Your task to perform on an android device: Open Android settings Image 0: 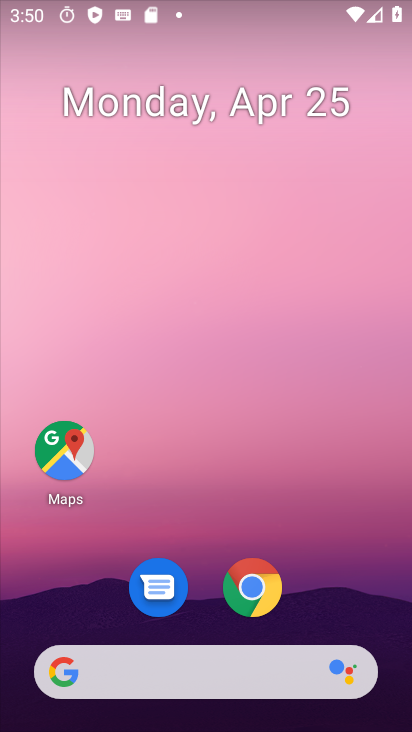
Step 0: drag from (361, 593) to (287, 124)
Your task to perform on an android device: Open Android settings Image 1: 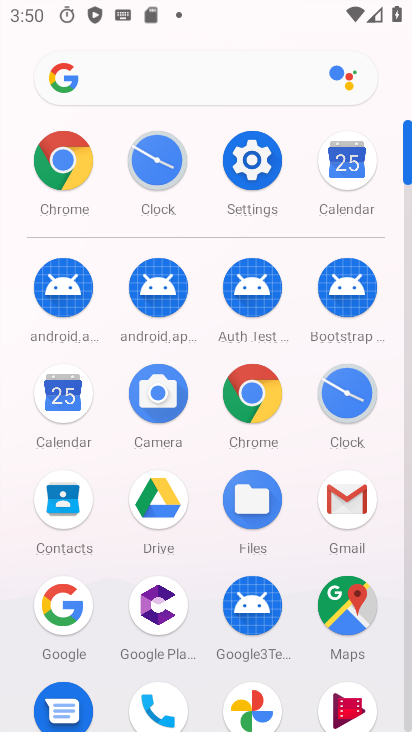
Step 1: click (258, 168)
Your task to perform on an android device: Open Android settings Image 2: 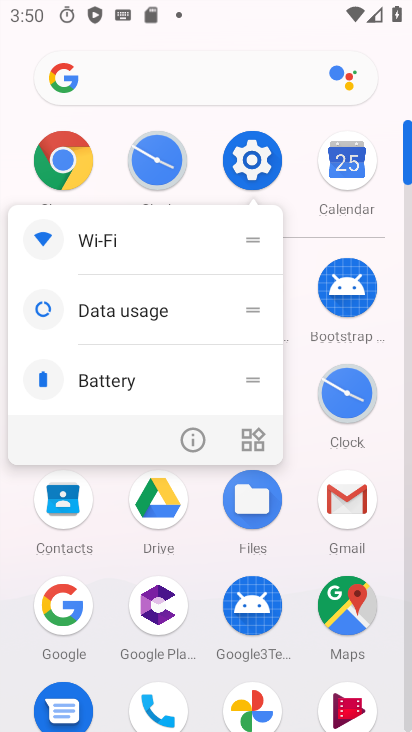
Step 2: click (250, 156)
Your task to perform on an android device: Open Android settings Image 3: 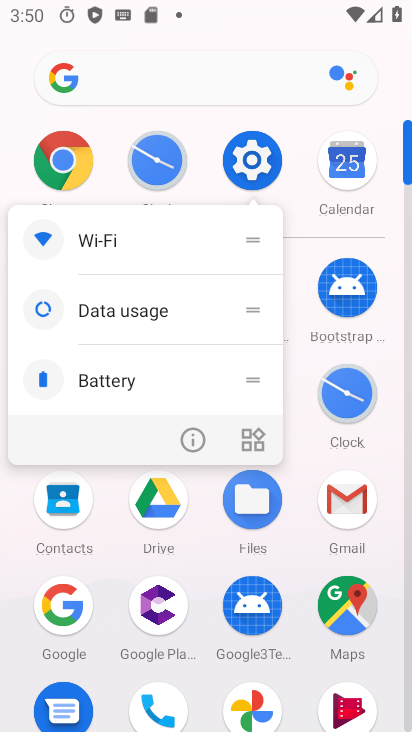
Step 3: click (250, 156)
Your task to perform on an android device: Open Android settings Image 4: 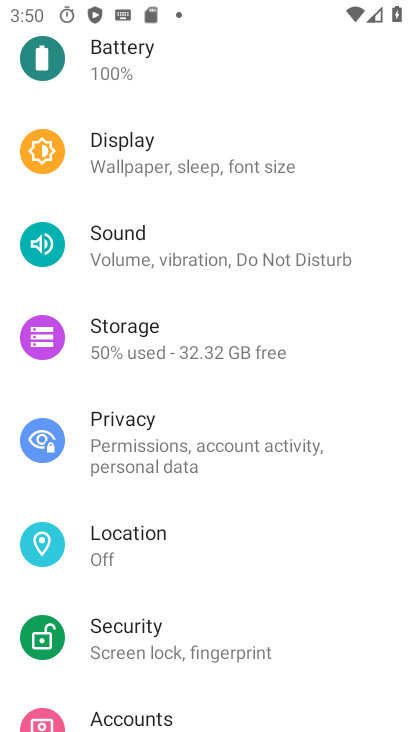
Step 4: task complete